Your task to perform on an android device: Open display settings Image 0: 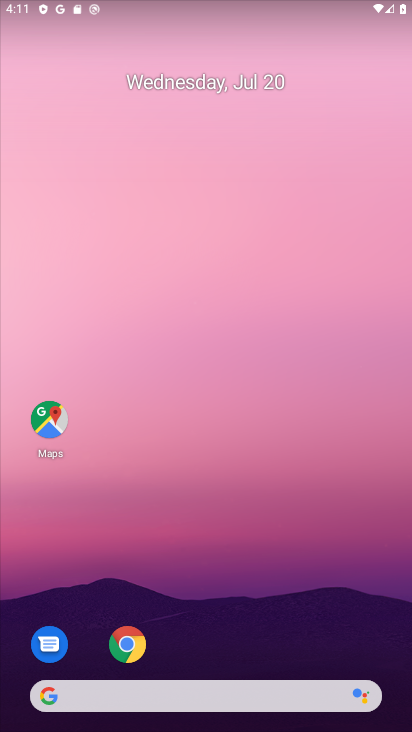
Step 0: press home button
Your task to perform on an android device: Open display settings Image 1: 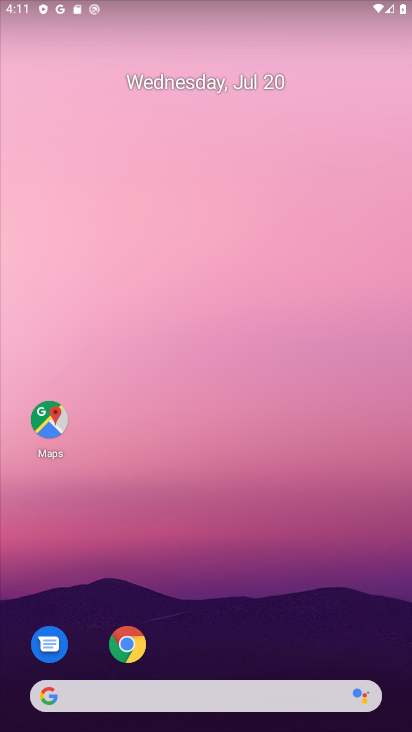
Step 1: drag from (246, 653) to (285, 11)
Your task to perform on an android device: Open display settings Image 2: 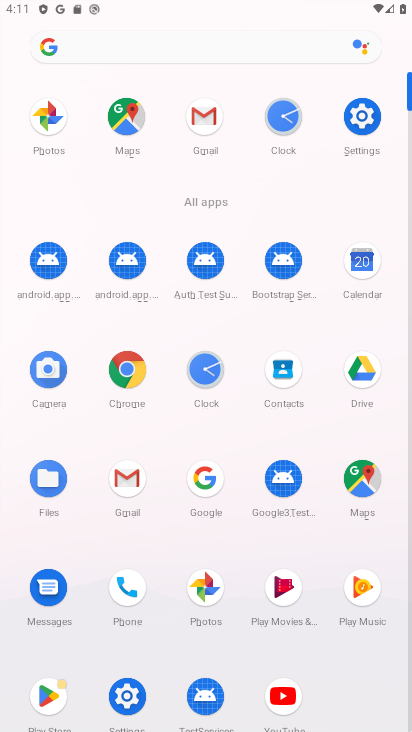
Step 2: click (369, 122)
Your task to perform on an android device: Open display settings Image 3: 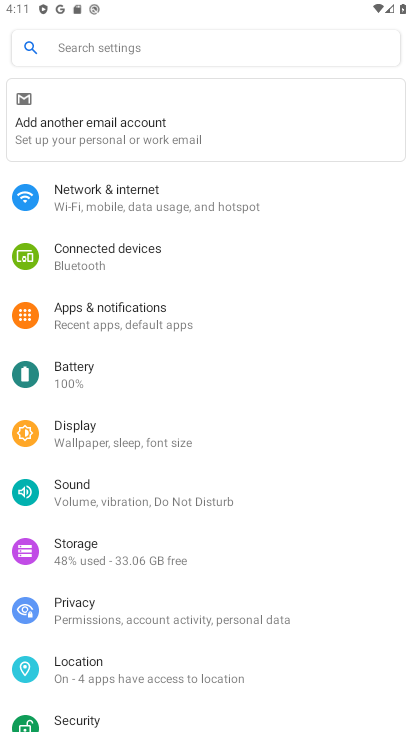
Step 3: click (105, 439)
Your task to perform on an android device: Open display settings Image 4: 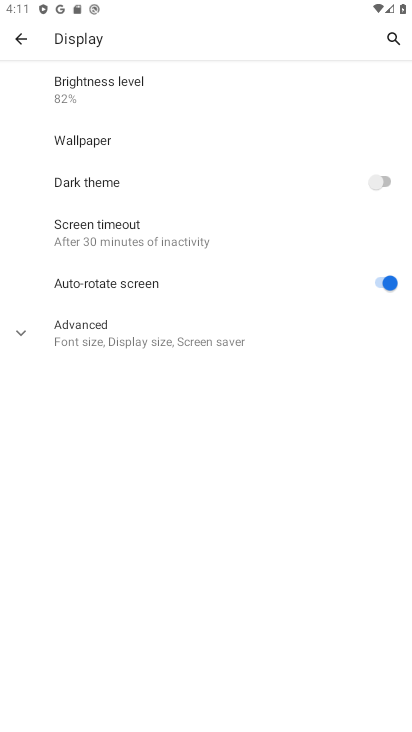
Step 4: task complete